Your task to perform on an android device: turn off sleep mode Image 0: 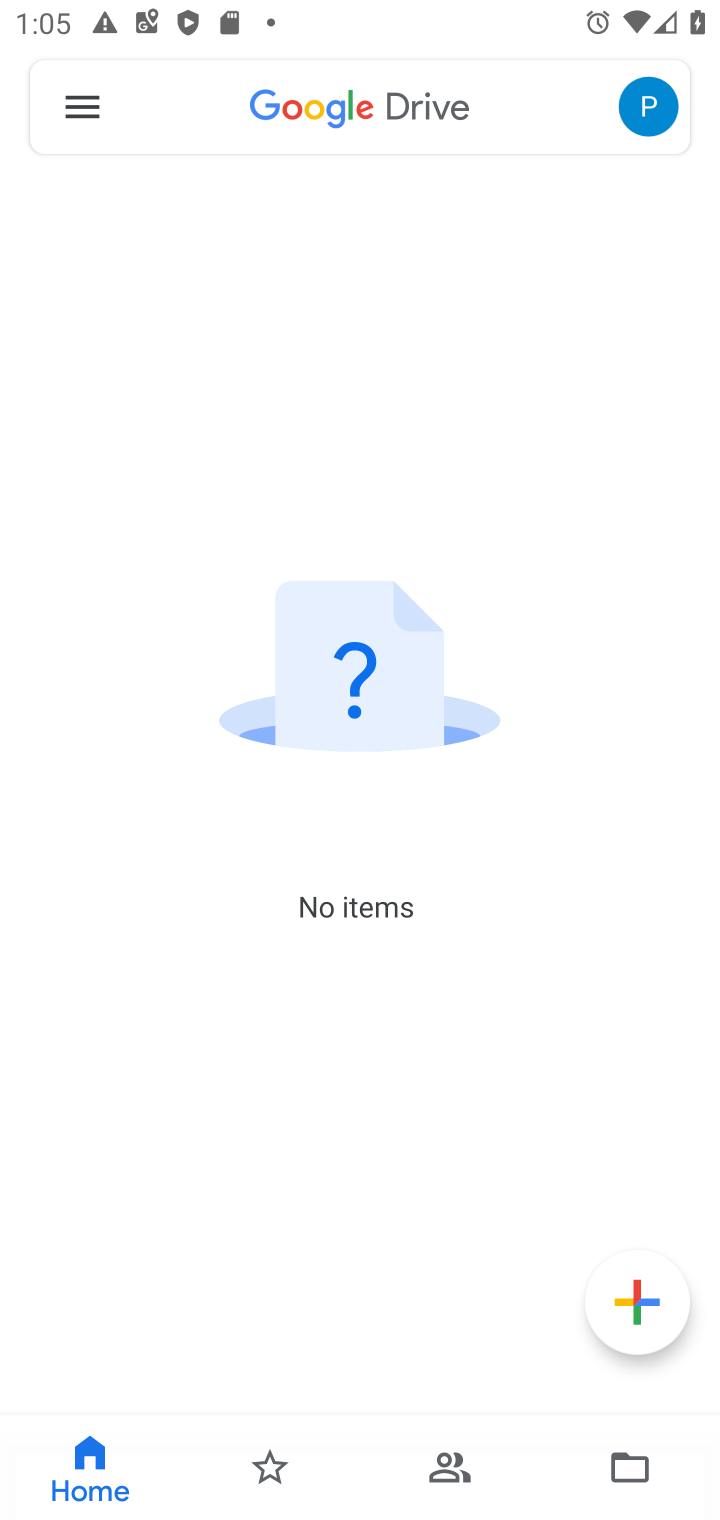
Step 0: press home button
Your task to perform on an android device: turn off sleep mode Image 1: 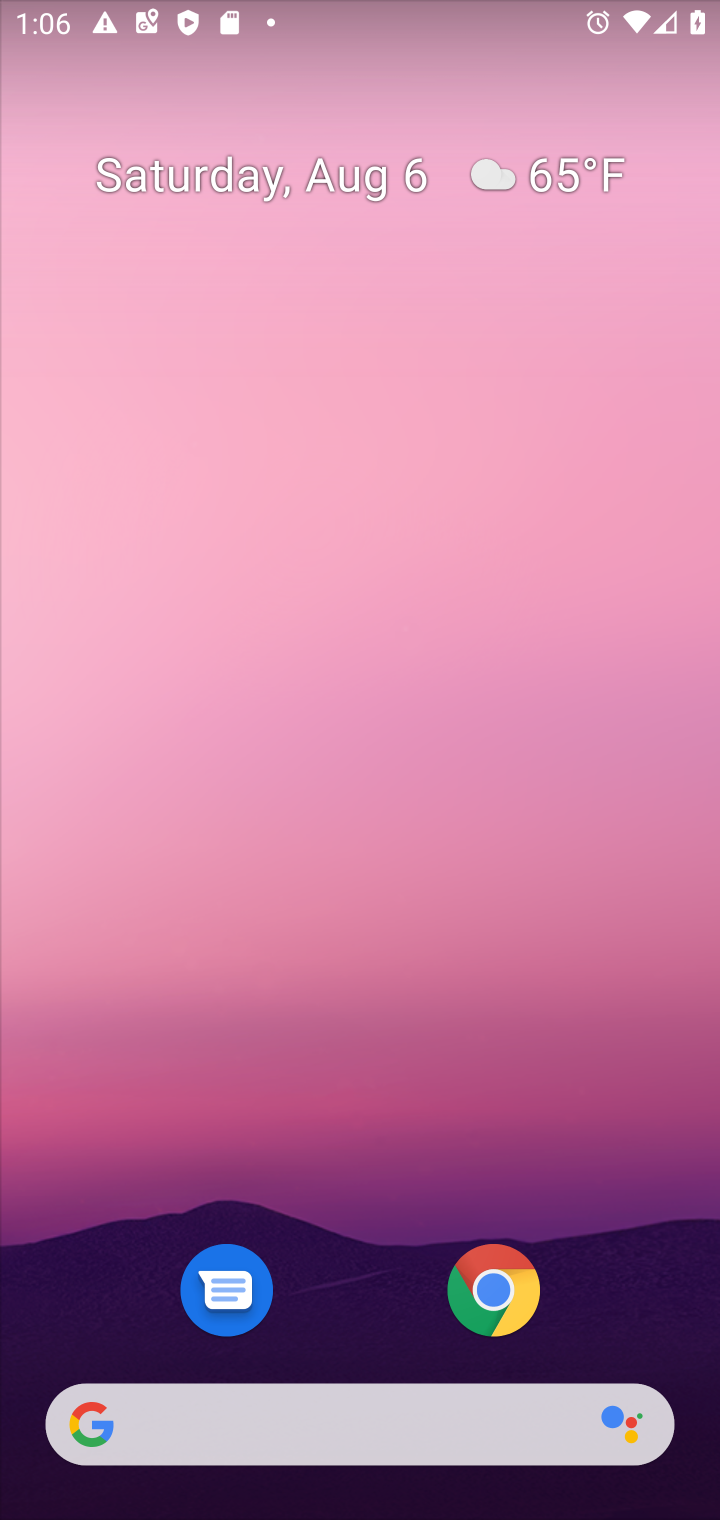
Step 1: drag from (360, 1344) to (381, 30)
Your task to perform on an android device: turn off sleep mode Image 2: 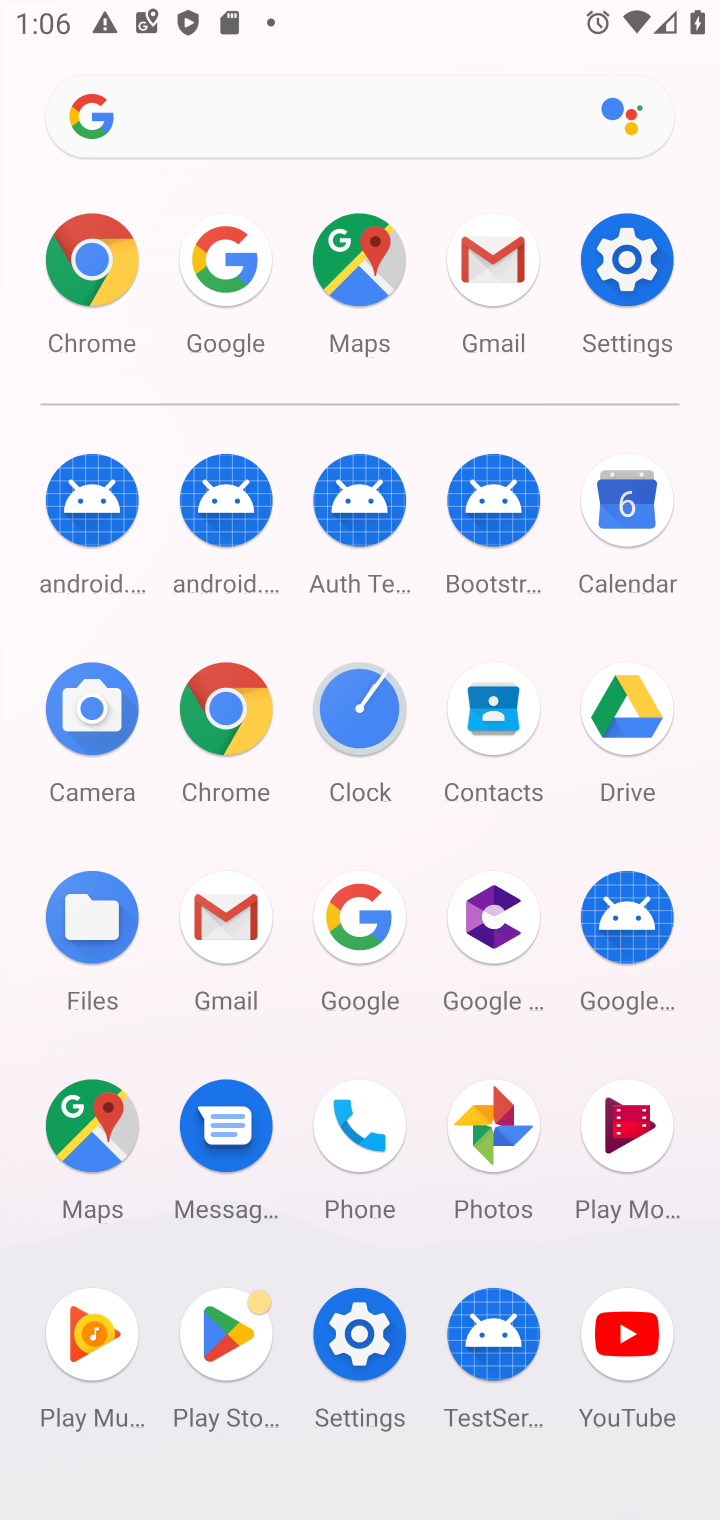
Step 2: click (627, 251)
Your task to perform on an android device: turn off sleep mode Image 3: 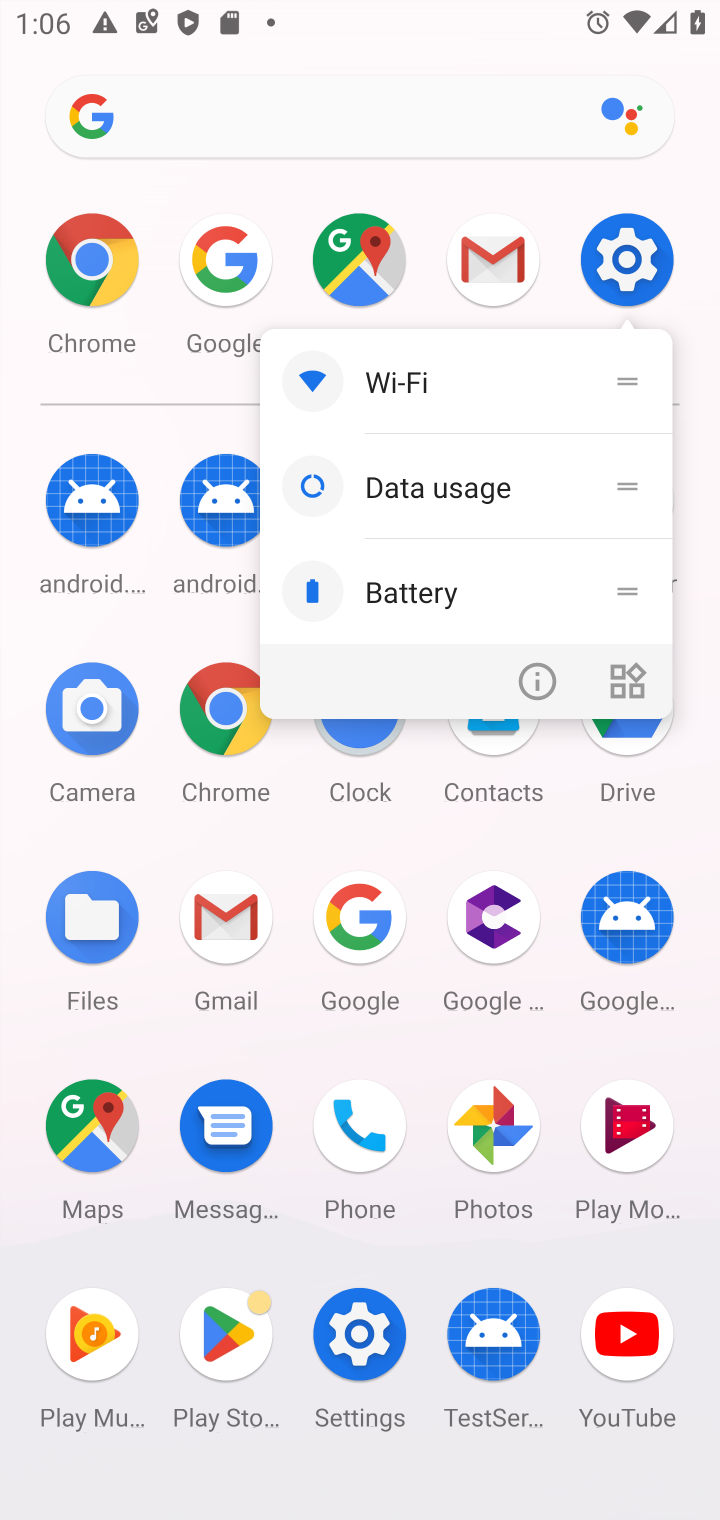
Step 3: click (619, 246)
Your task to perform on an android device: turn off sleep mode Image 4: 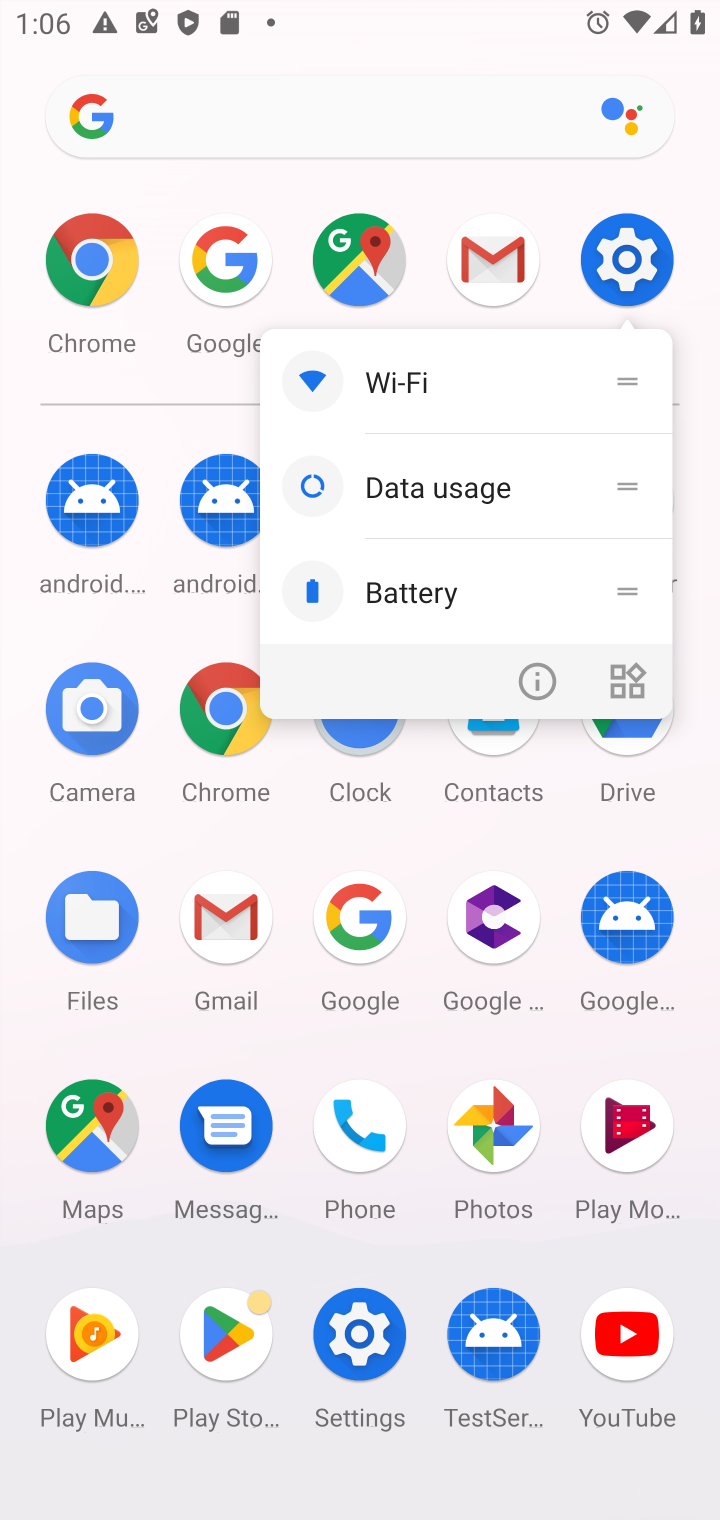
Step 4: click (619, 243)
Your task to perform on an android device: turn off sleep mode Image 5: 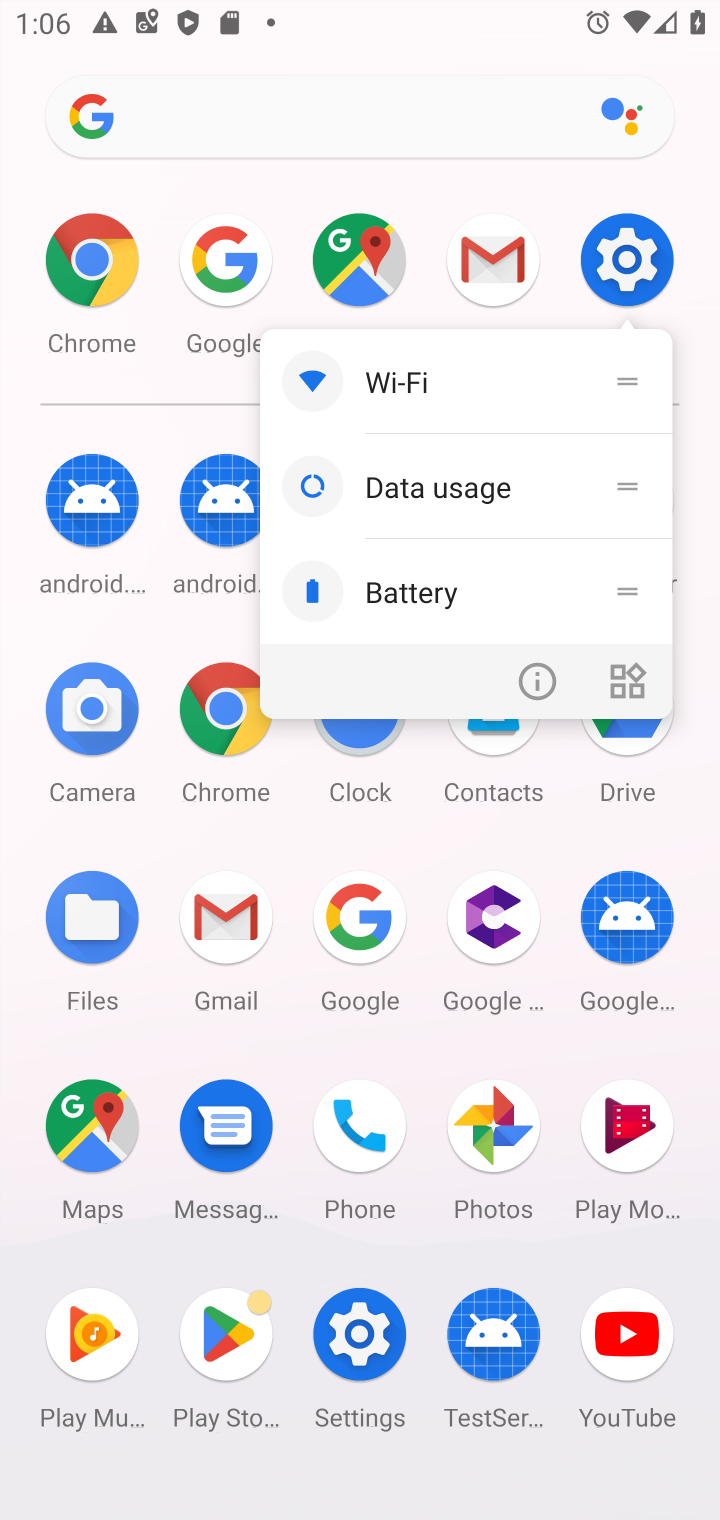
Step 5: click (621, 238)
Your task to perform on an android device: turn off sleep mode Image 6: 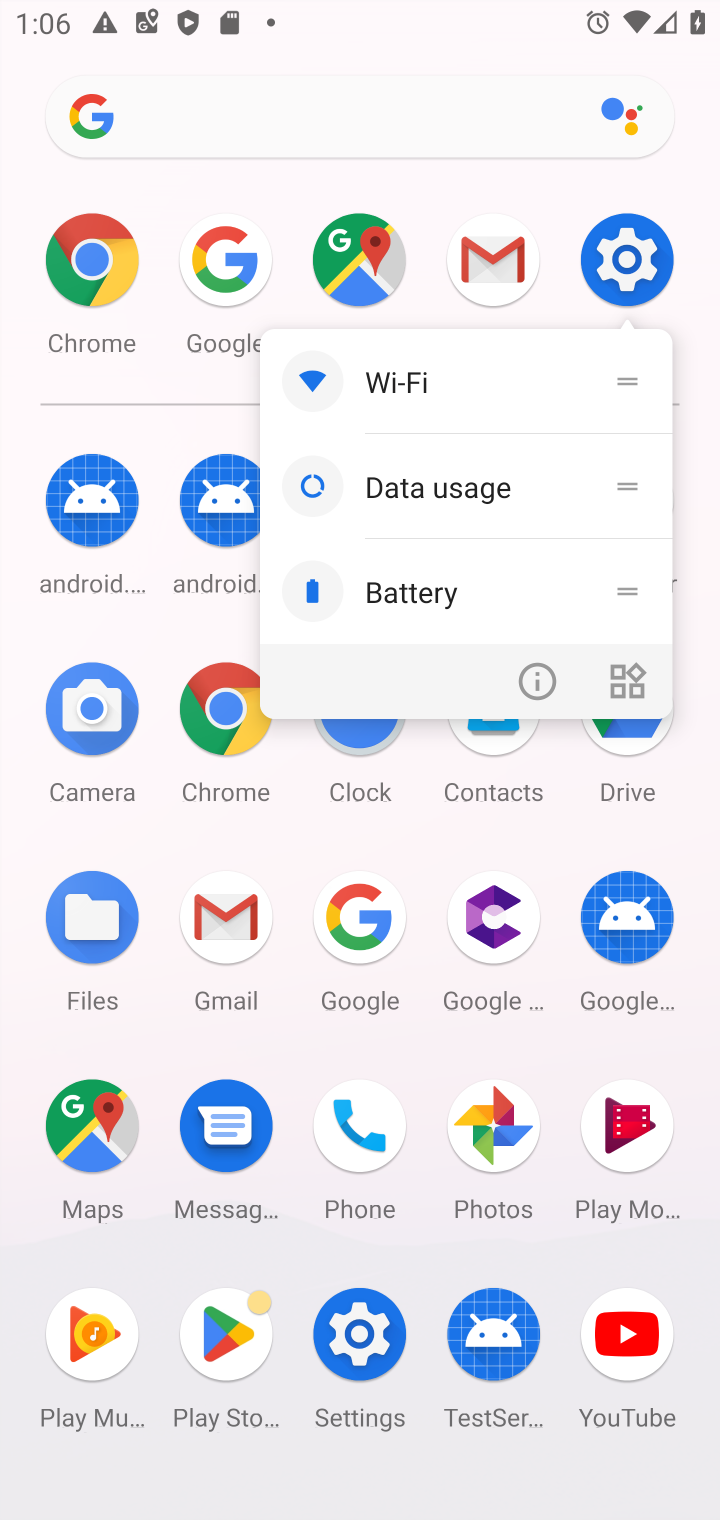
Step 6: click (621, 240)
Your task to perform on an android device: turn off sleep mode Image 7: 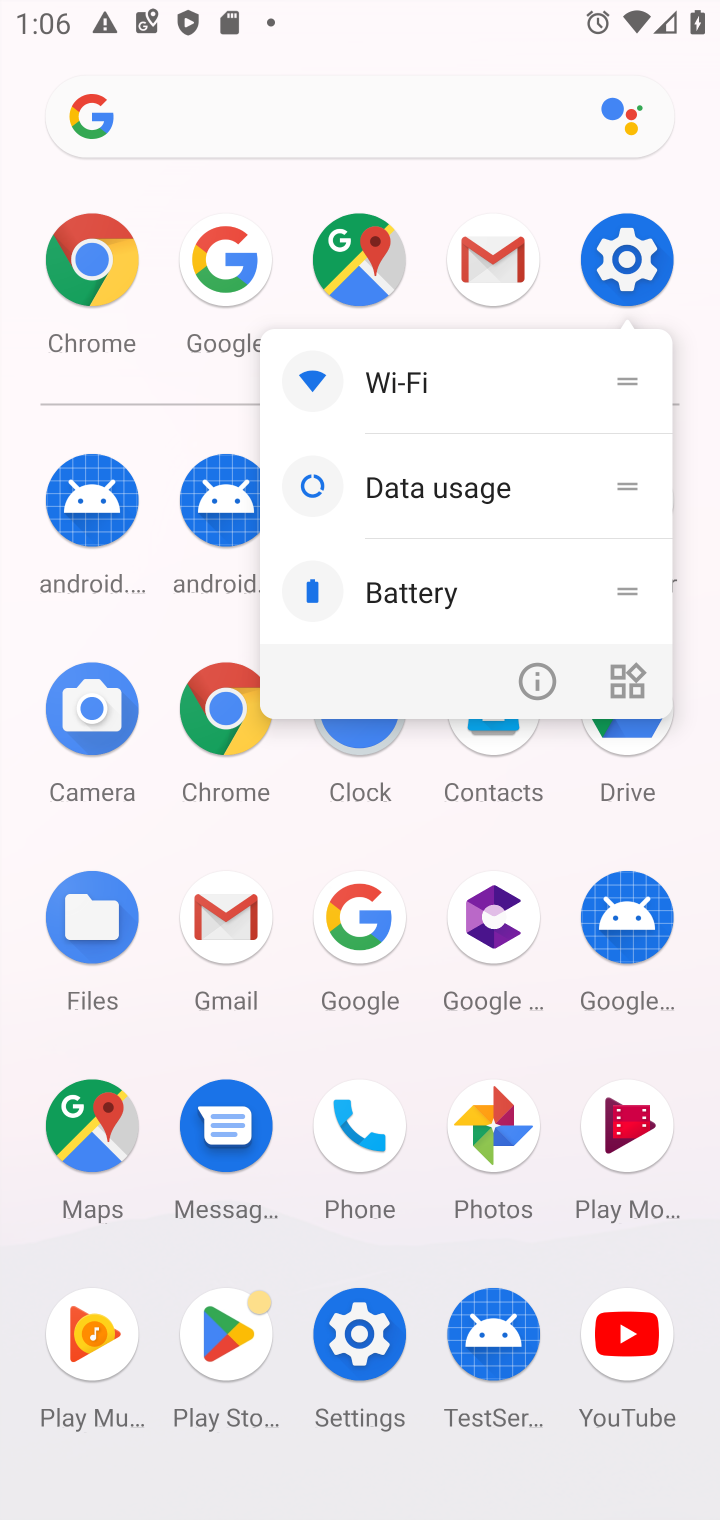
Step 7: click (615, 243)
Your task to perform on an android device: turn off sleep mode Image 8: 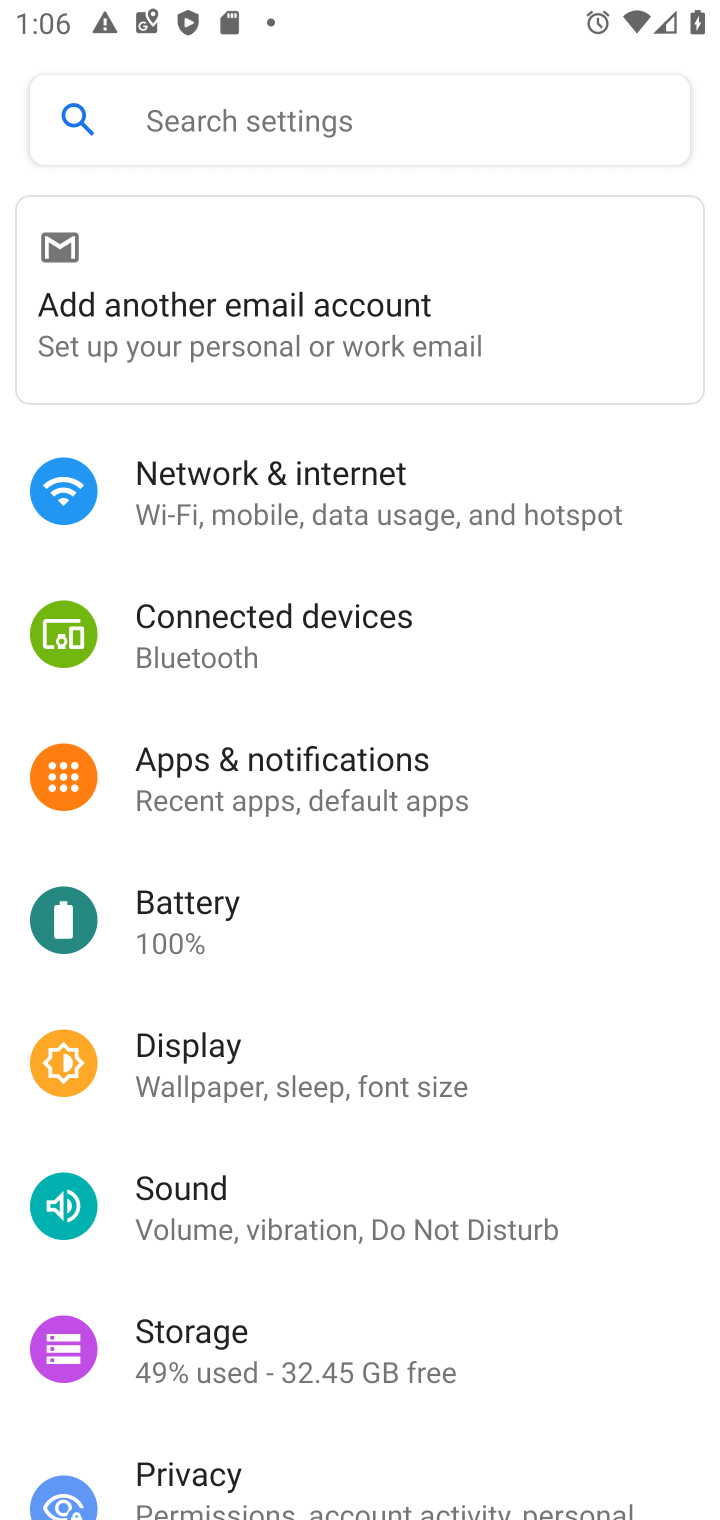
Step 8: click (259, 1050)
Your task to perform on an android device: turn off sleep mode Image 9: 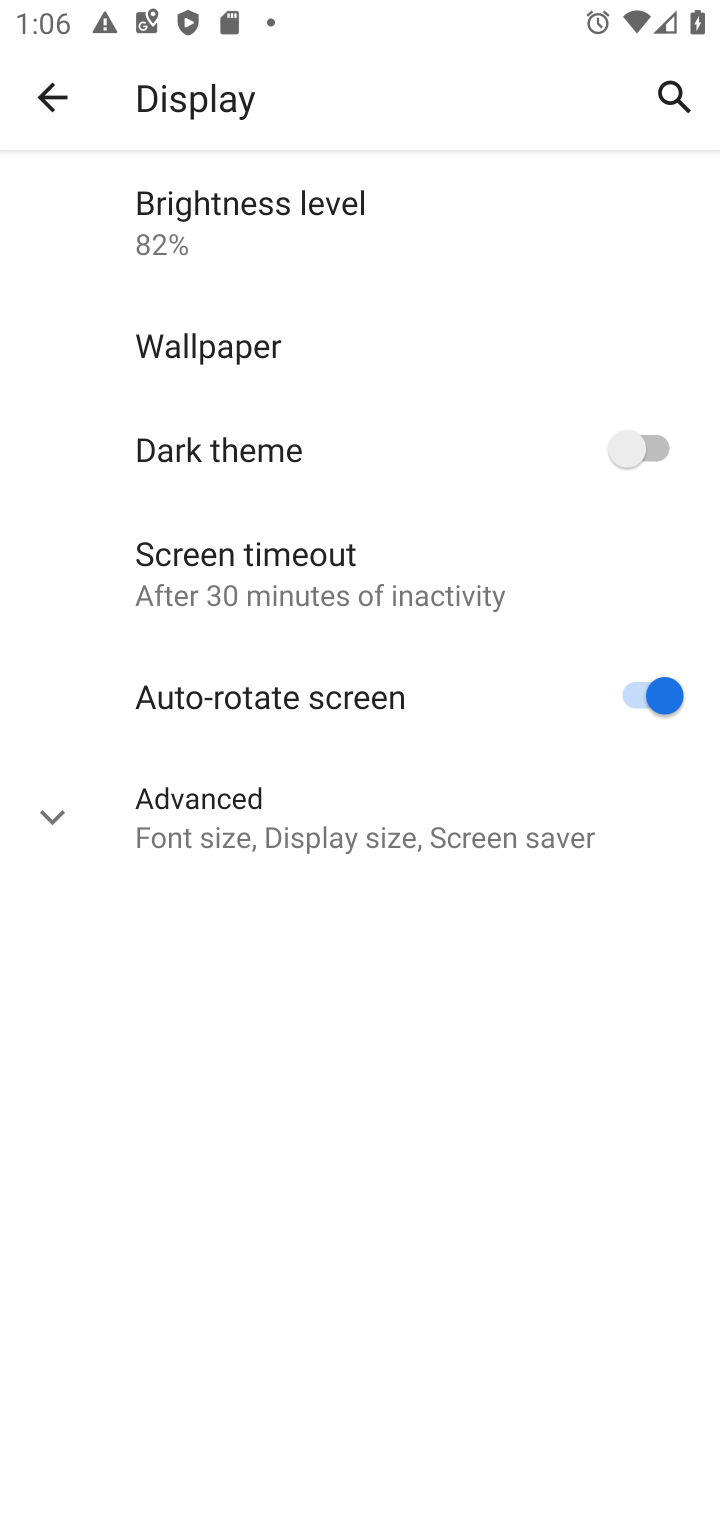
Step 9: click (39, 826)
Your task to perform on an android device: turn off sleep mode Image 10: 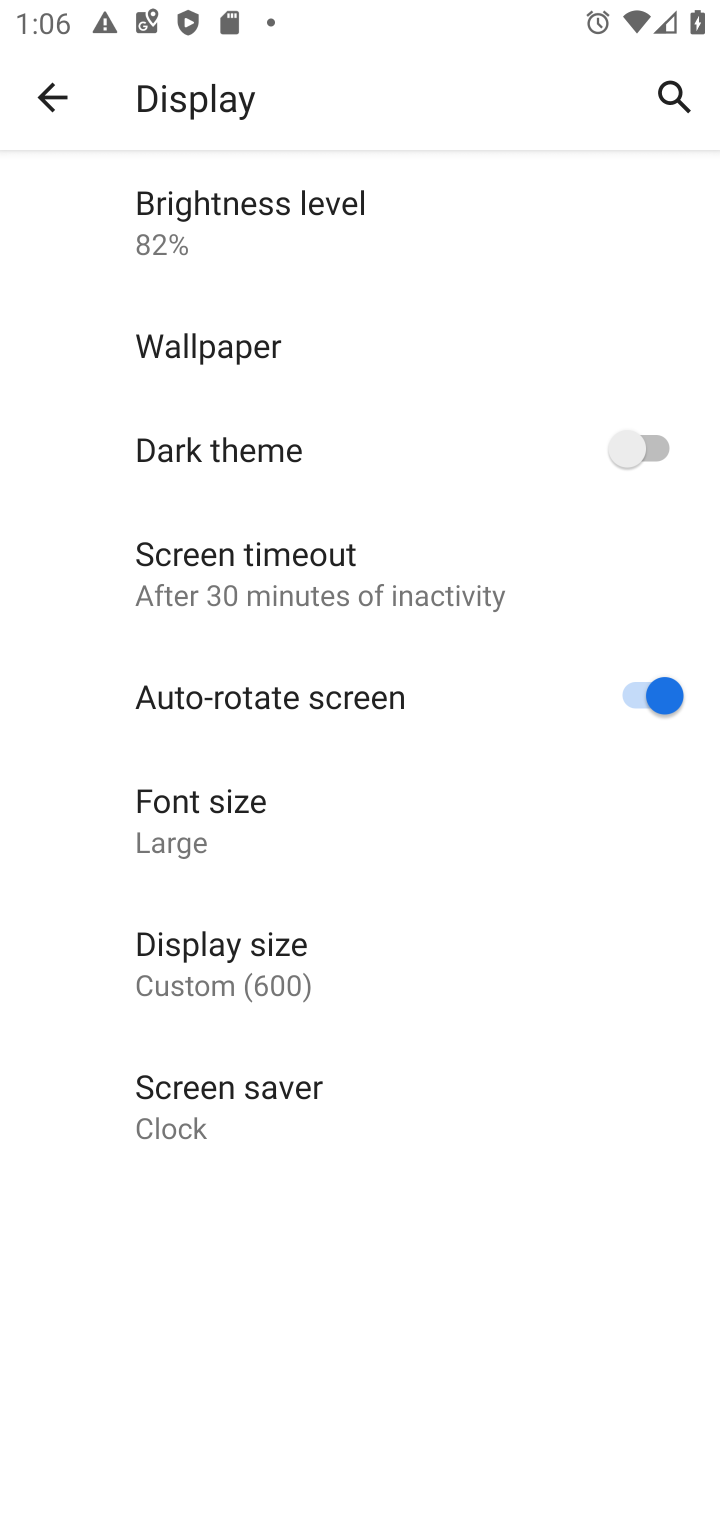
Step 10: task complete